Your task to perform on an android device: What's the weather today? Image 0: 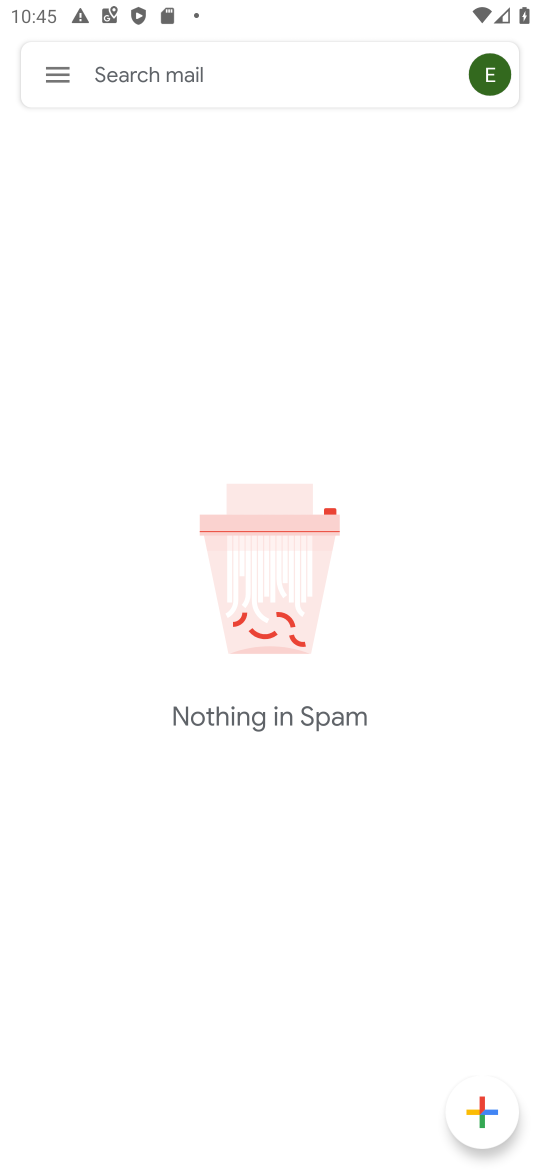
Step 0: press home button
Your task to perform on an android device: What's the weather today? Image 1: 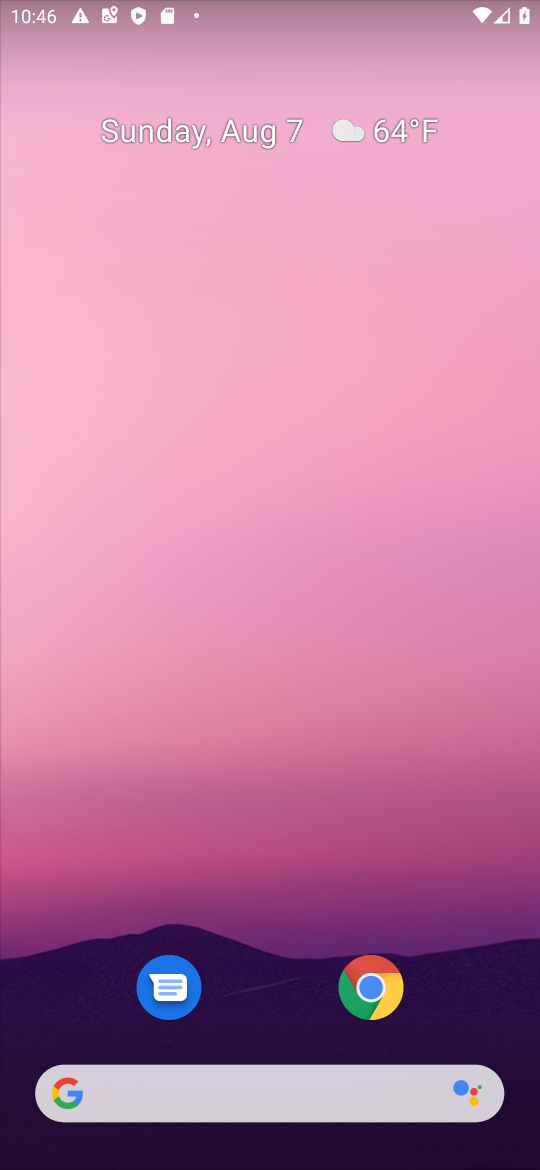
Step 1: click (168, 1090)
Your task to perform on an android device: What's the weather today? Image 2: 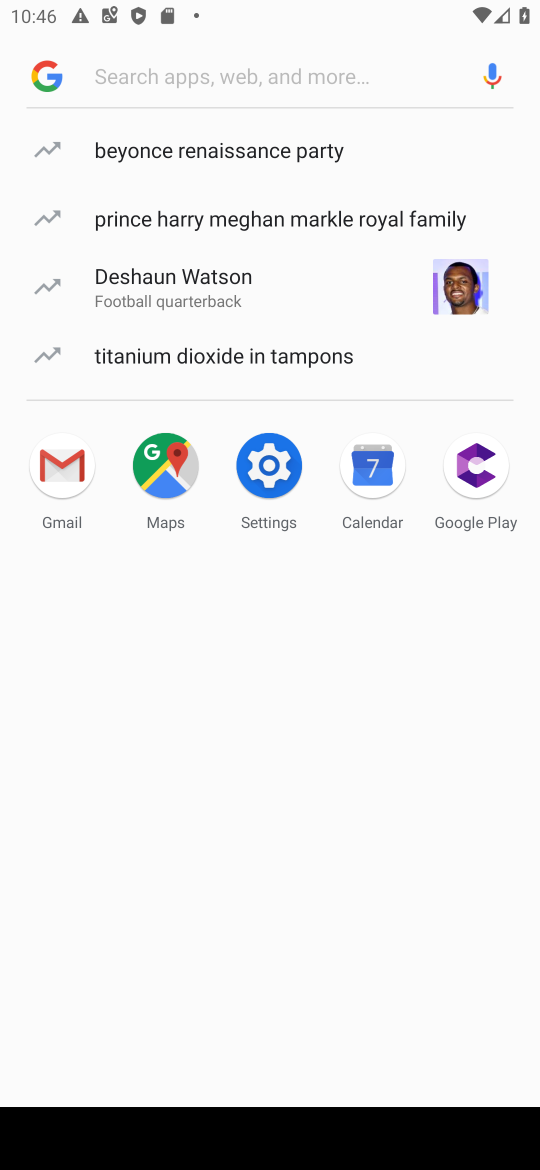
Step 2: type "what's the weather today"
Your task to perform on an android device: What's the weather today? Image 3: 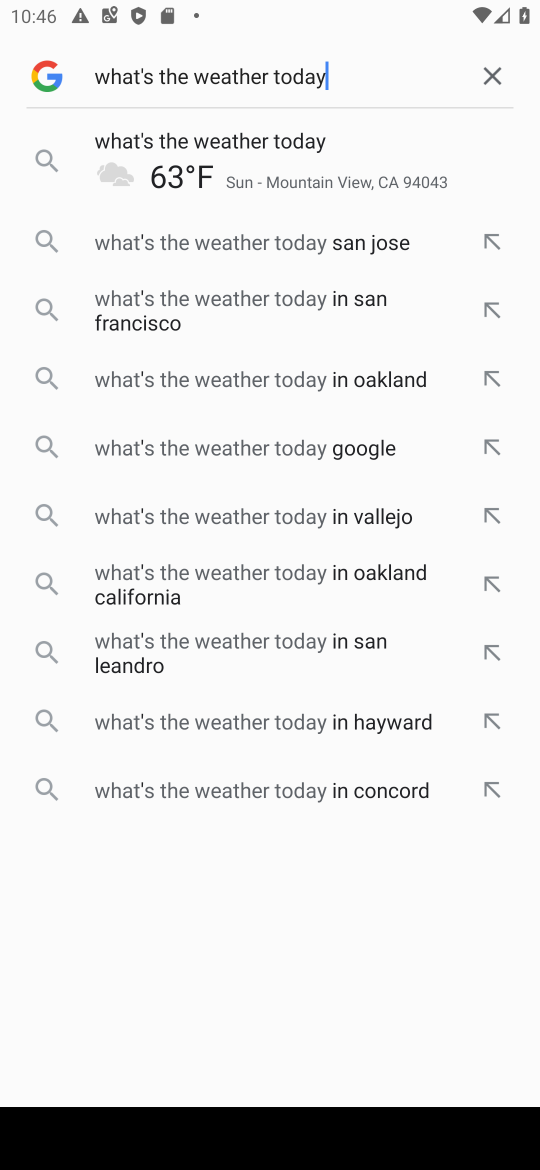
Step 3: click (213, 160)
Your task to perform on an android device: What's the weather today? Image 4: 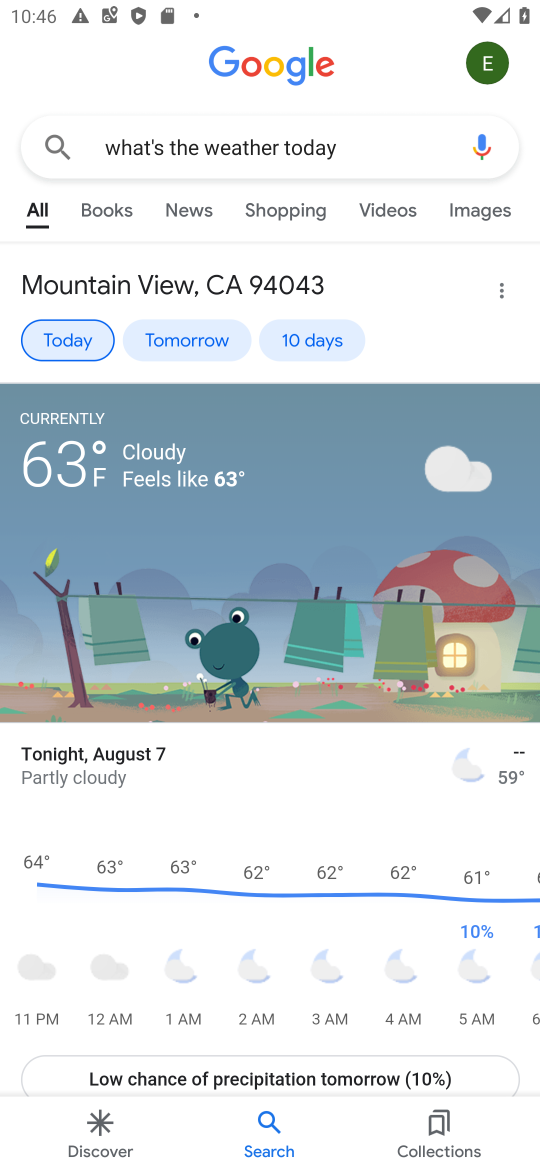
Step 4: task complete